Your task to perform on an android device: Go to accessibility settings Image 0: 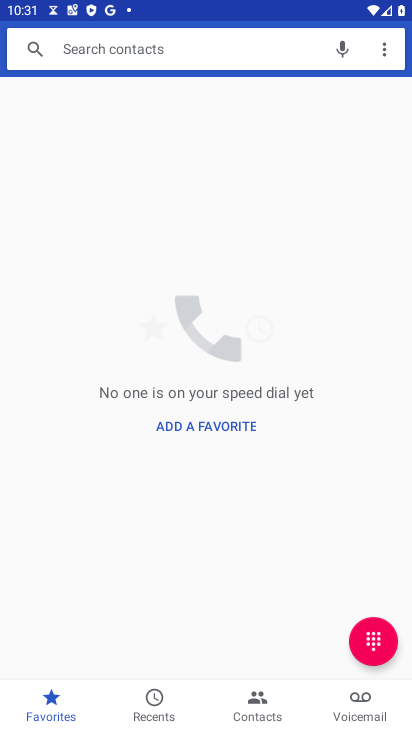
Step 0: press home button
Your task to perform on an android device: Go to accessibility settings Image 1: 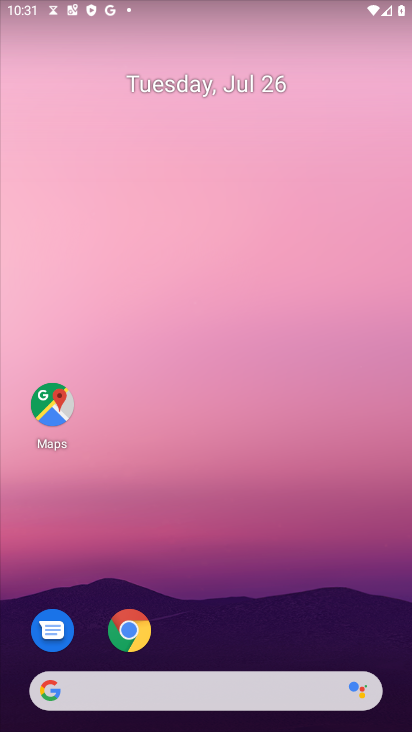
Step 1: drag from (197, 684) to (197, 100)
Your task to perform on an android device: Go to accessibility settings Image 2: 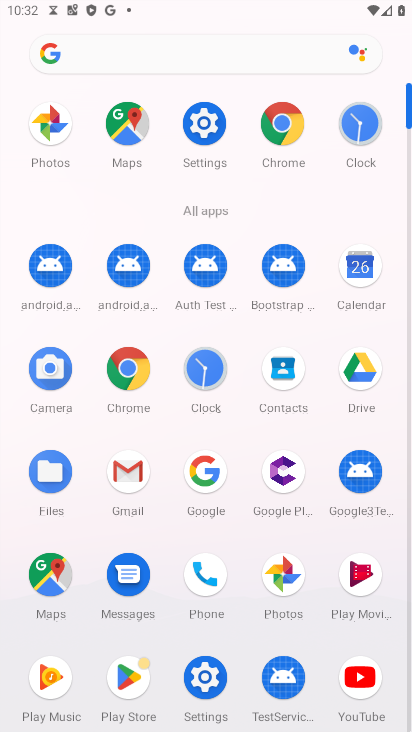
Step 2: click (206, 124)
Your task to perform on an android device: Go to accessibility settings Image 3: 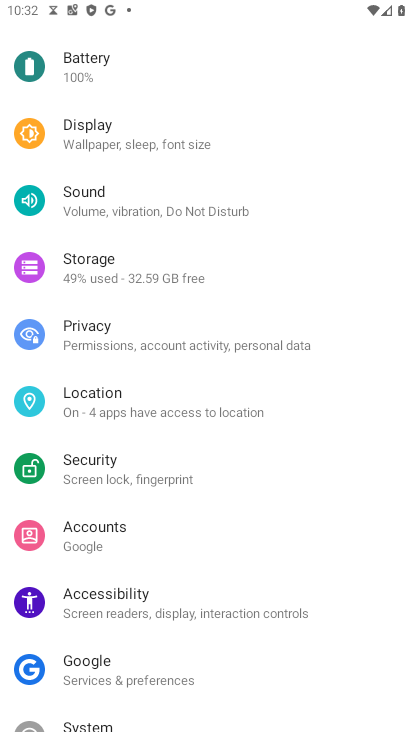
Step 3: click (100, 600)
Your task to perform on an android device: Go to accessibility settings Image 4: 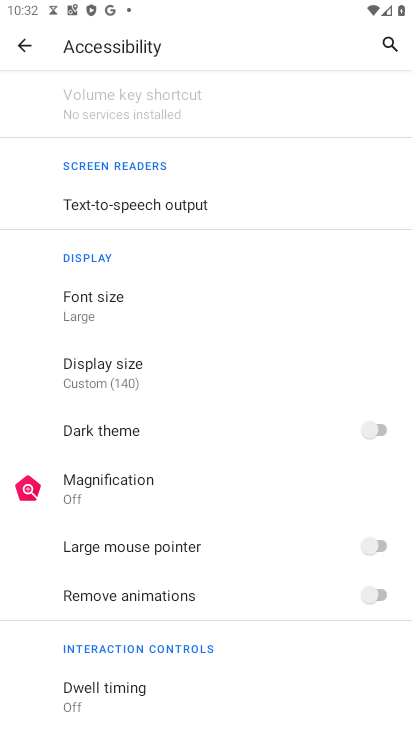
Step 4: task complete